Your task to perform on an android device: Go to Amazon Image 0: 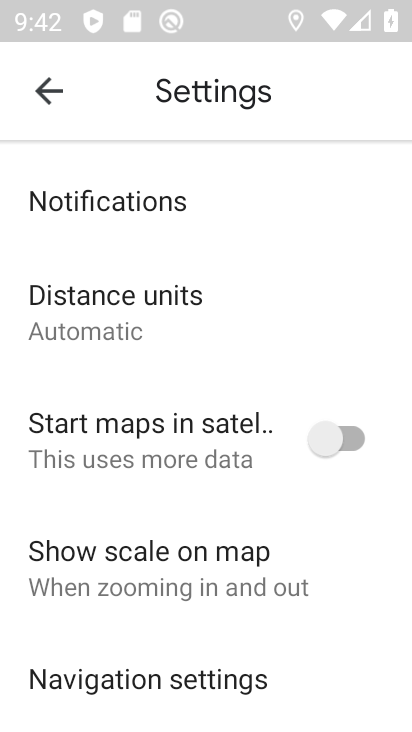
Step 0: press home button
Your task to perform on an android device: Go to Amazon Image 1: 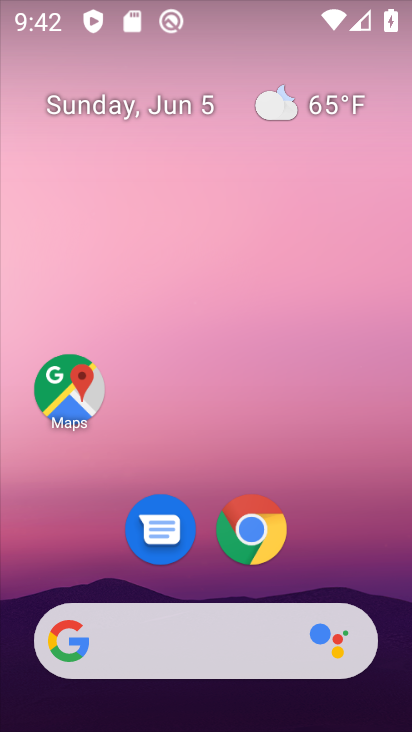
Step 1: click (256, 545)
Your task to perform on an android device: Go to Amazon Image 2: 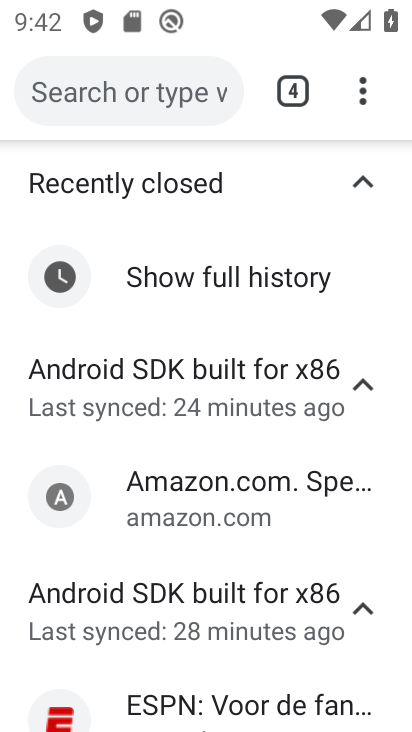
Step 2: click (361, 91)
Your task to perform on an android device: Go to Amazon Image 3: 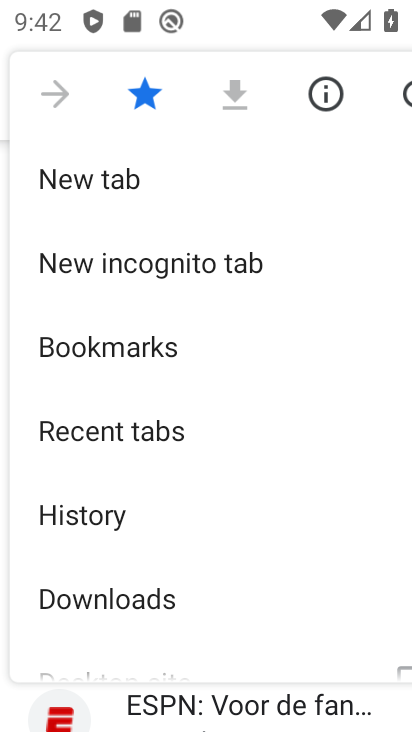
Step 3: click (210, 186)
Your task to perform on an android device: Go to Amazon Image 4: 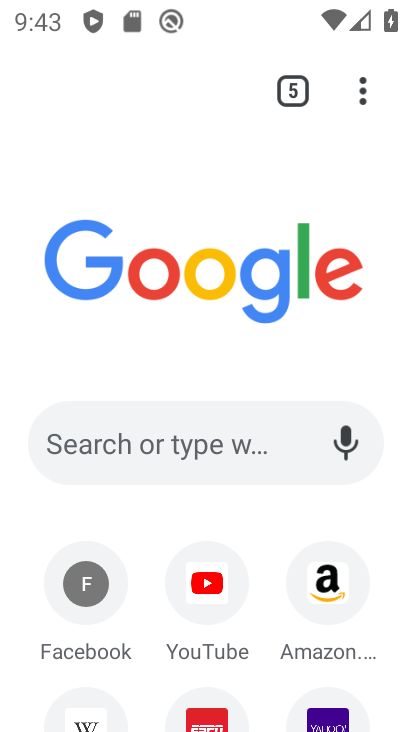
Step 4: click (358, 611)
Your task to perform on an android device: Go to Amazon Image 5: 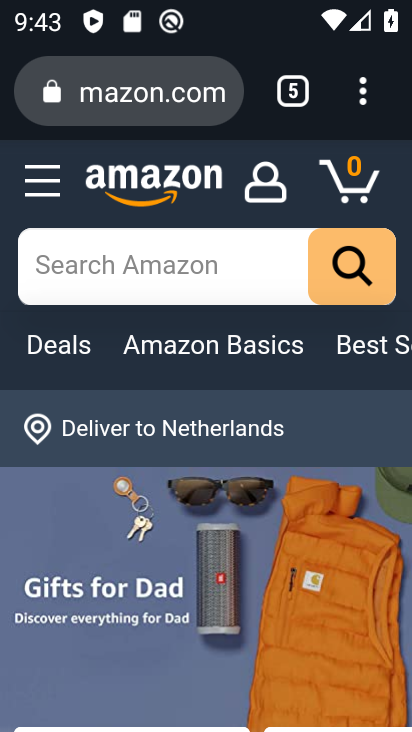
Step 5: task complete